Your task to perform on an android device: Go to sound settings Image 0: 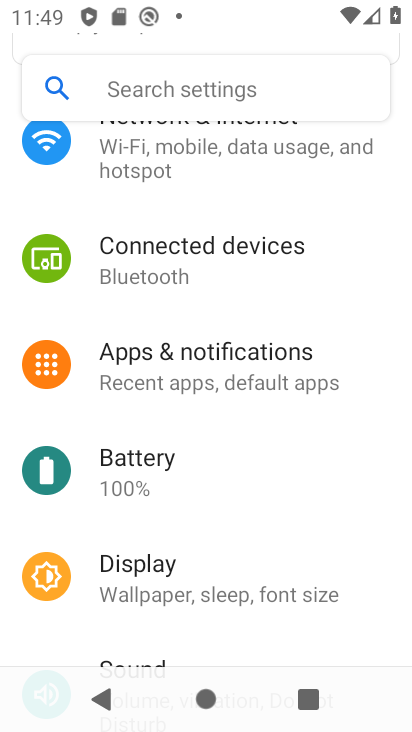
Step 0: drag from (246, 493) to (247, 368)
Your task to perform on an android device: Go to sound settings Image 1: 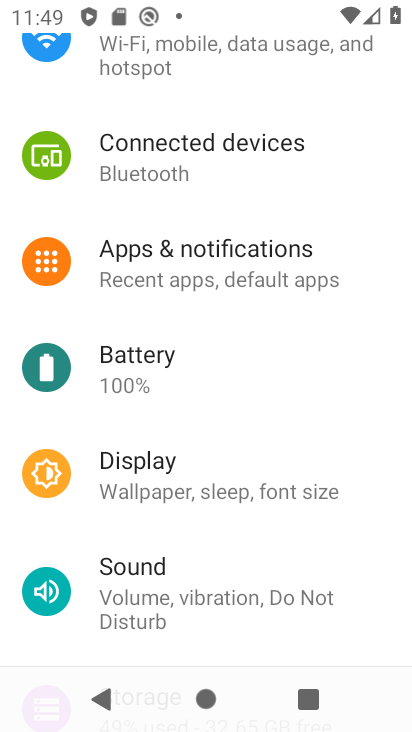
Step 1: click (103, 591)
Your task to perform on an android device: Go to sound settings Image 2: 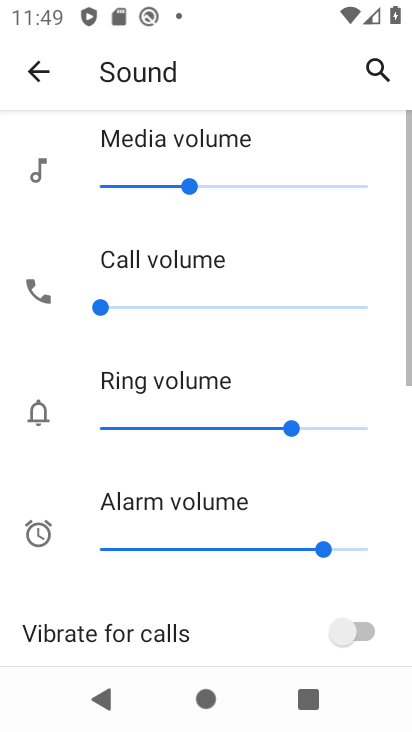
Step 2: task complete